Your task to perform on an android device: Open Google Chrome and open the bookmarks view Image 0: 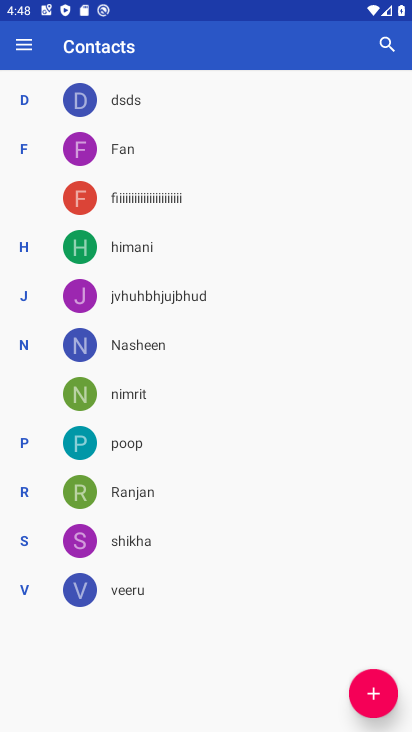
Step 0: press home button
Your task to perform on an android device: Open Google Chrome and open the bookmarks view Image 1: 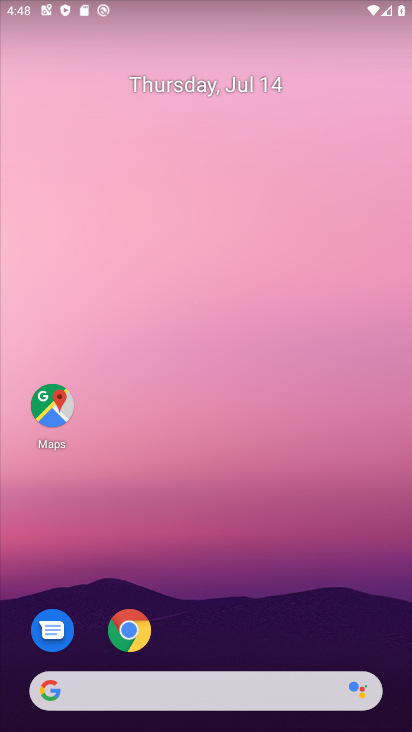
Step 1: drag from (279, 680) to (358, 155)
Your task to perform on an android device: Open Google Chrome and open the bookmarks view Image 2: 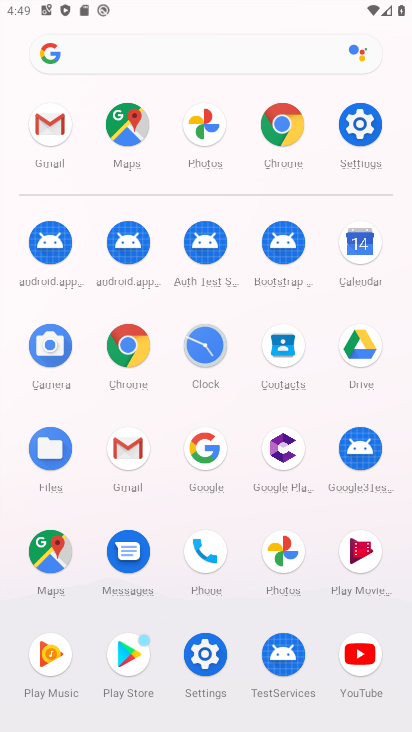
Step 2: click (122, 360)
Your task to perform on an android device: Open Google Chrome and open the bookmarks view Image 3: 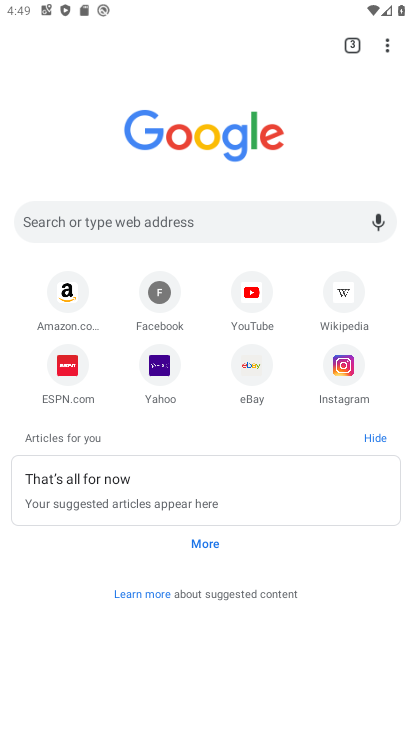
Step 3: task complete